Your task to perform on an android device: Open wifi settings Image 0: 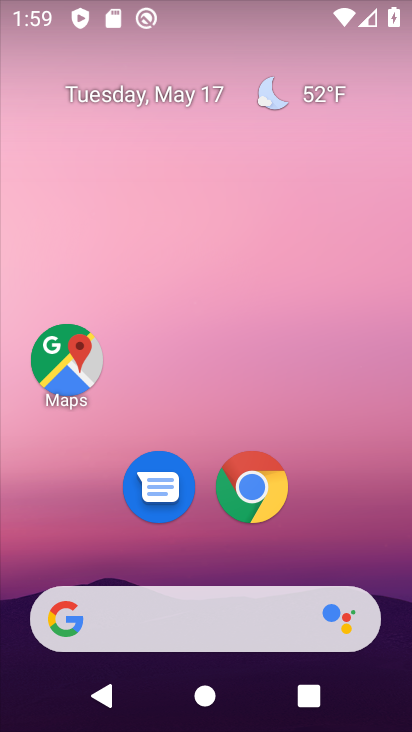
Step 0: drag from (400, 605) to (378, 318)
Your task to perform on an android device: Open wifi settings Image 1: 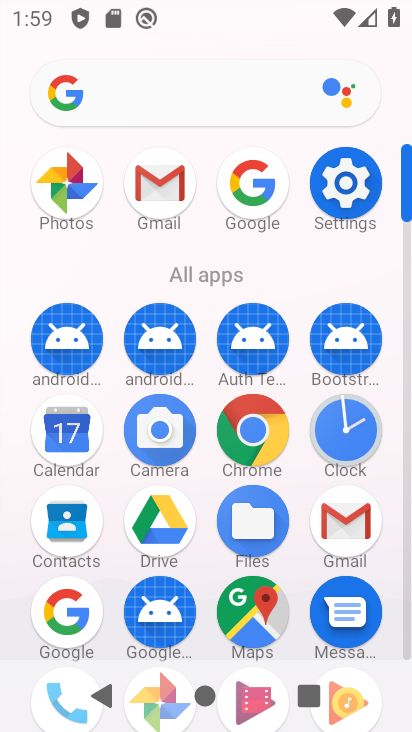
Step 1: click (345, 169)
Your task to perform on an android device: Open wifi settings Image 2: 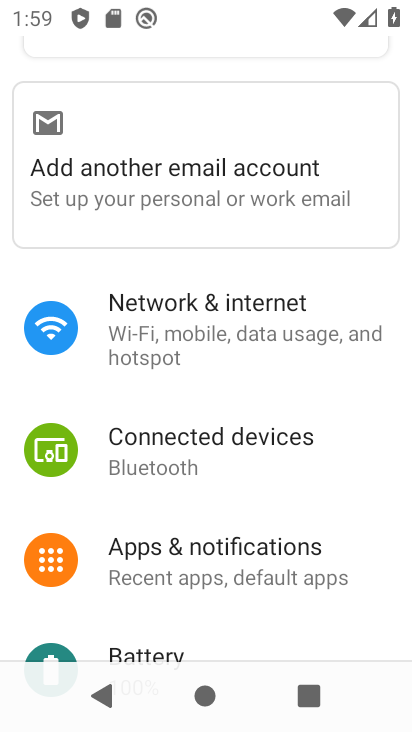
Step 2: click (207, 303)
Your task to perform on an android device: Open wifi settings Image 3: 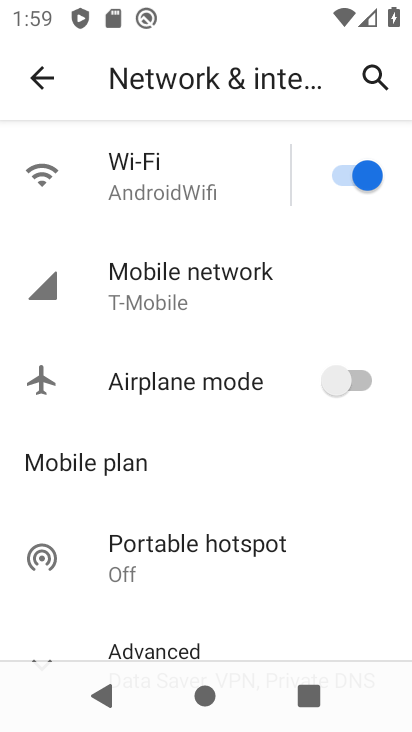
Step 3: click (174, 172)
Your task to perform on an android device: Open wifi settings Image 4: 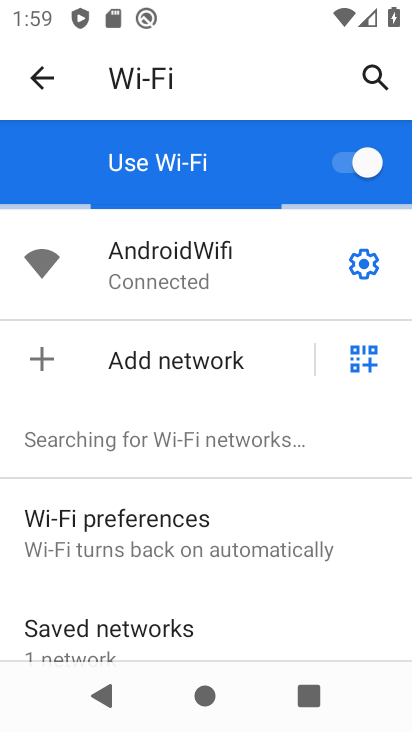
Step 4: click (360, 261)
Your task to perform on an android device: Open wifi settings Image 5: 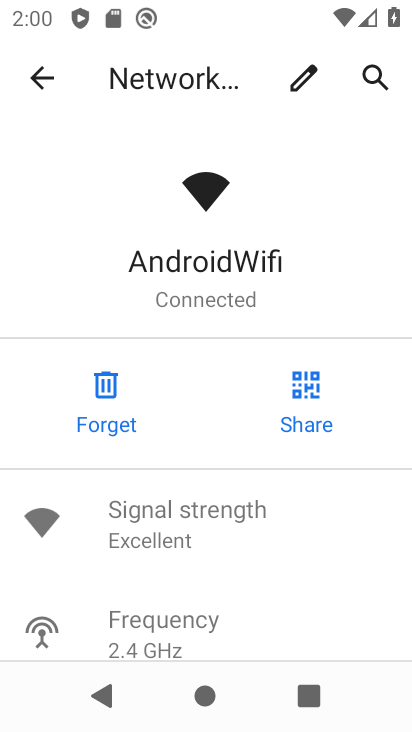
Step 5: task complete